Your task to perform on an android device: Open Yahoo.com Image 0: 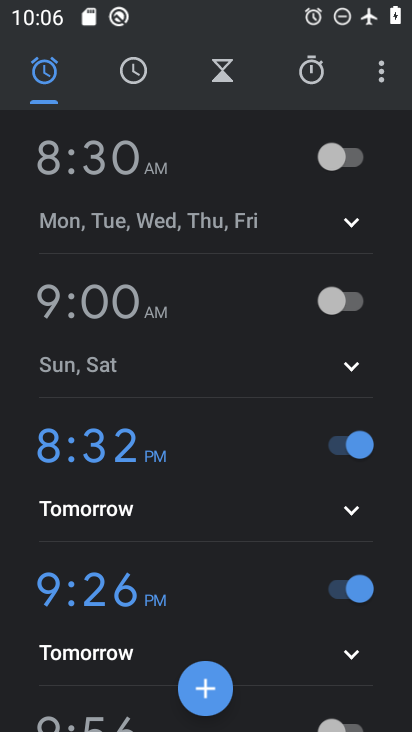
Step 0: press home button
Your task to perform on an android device: Open Yahoo.com Image 1: 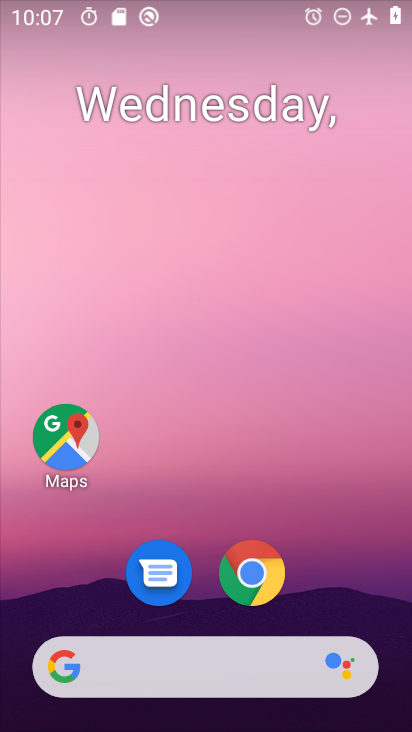
Step 1: click (263, 584)
Your task to perform on an android device: Open Yahoo.com Image 2: 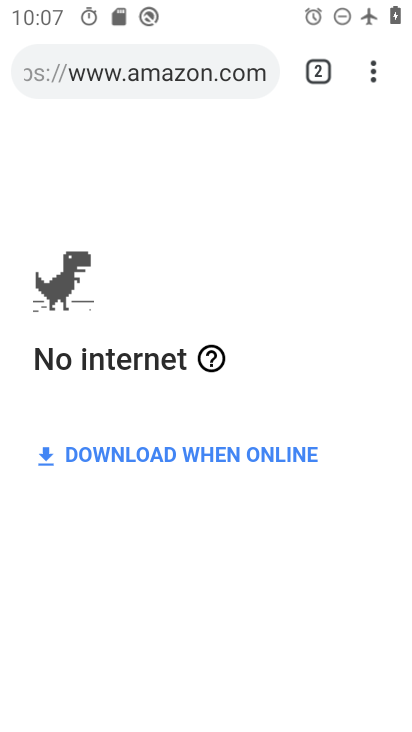
Step 2: click (230, 75)
Your task to perform on an android device: Open Yahoo.com Image 3: 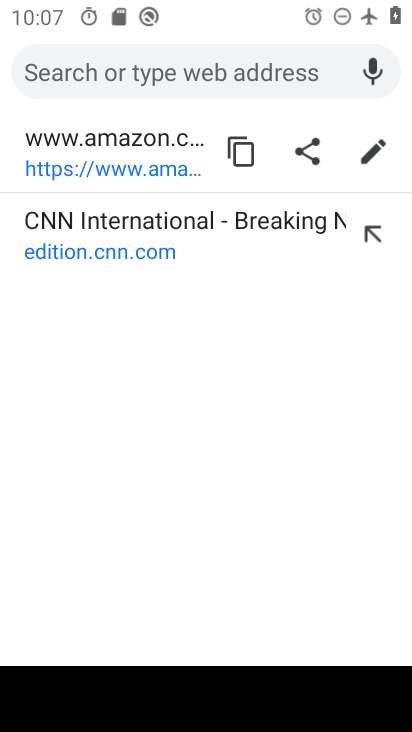
Step 3: type "yahoo"
Your task to perform on an android device: Open Yahoo.com Image 4: 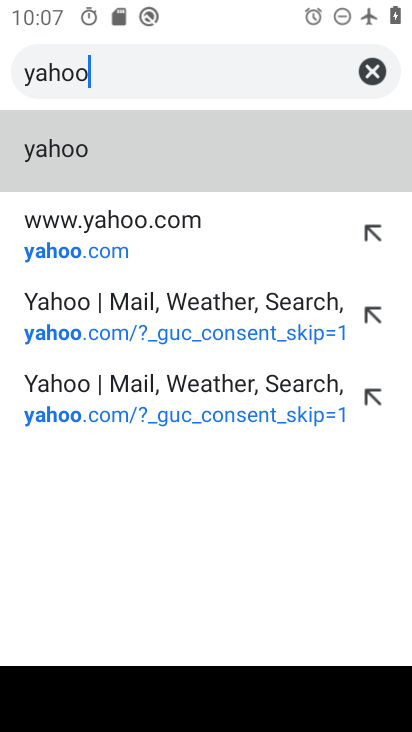
Step 4: click (246, 225)
Your task to perform on an android device: Open Yahoo.com Image 5: 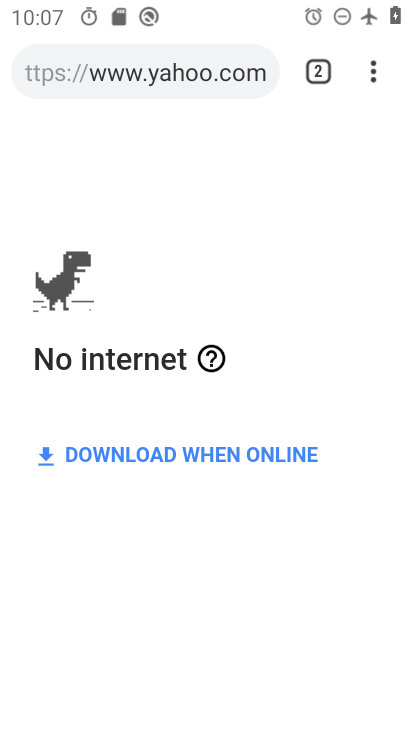
Step 5: task complete